Your task to perform on an android device: toggle sleep mode Image 0: 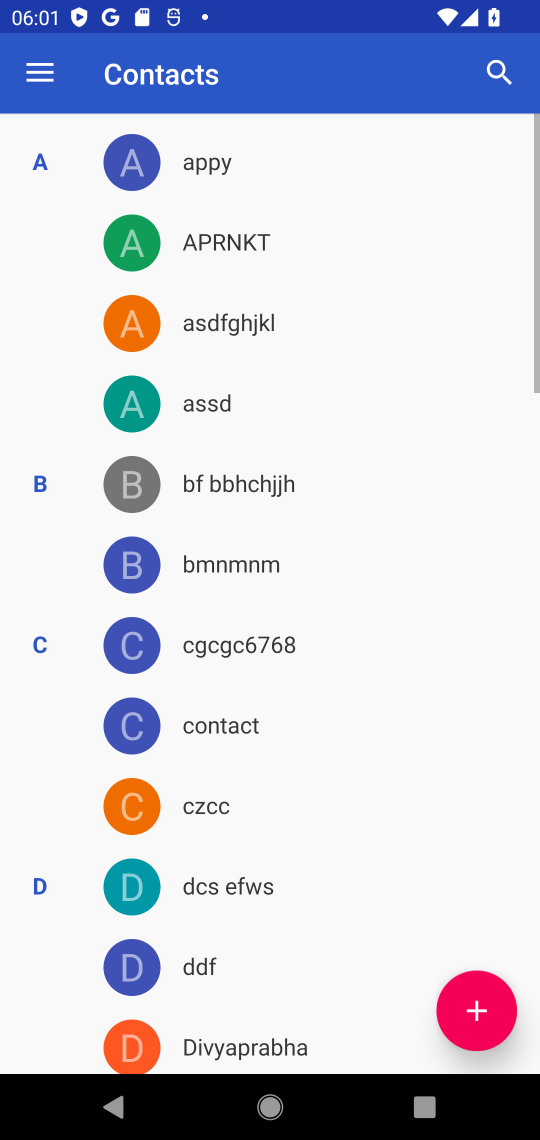
Step 0: press home button
Your task to perform on an android device: toggle sleep mode Image 1: 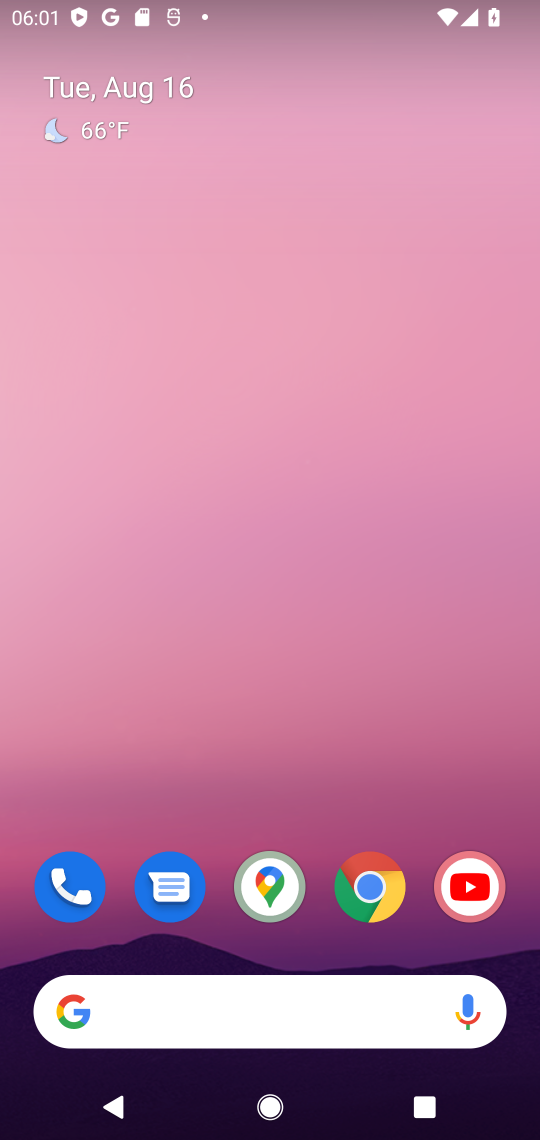
Step 1: drag from (311, 771) to (299, 191)
Your task to perform on an android device: toggle sleep mode Image 2: 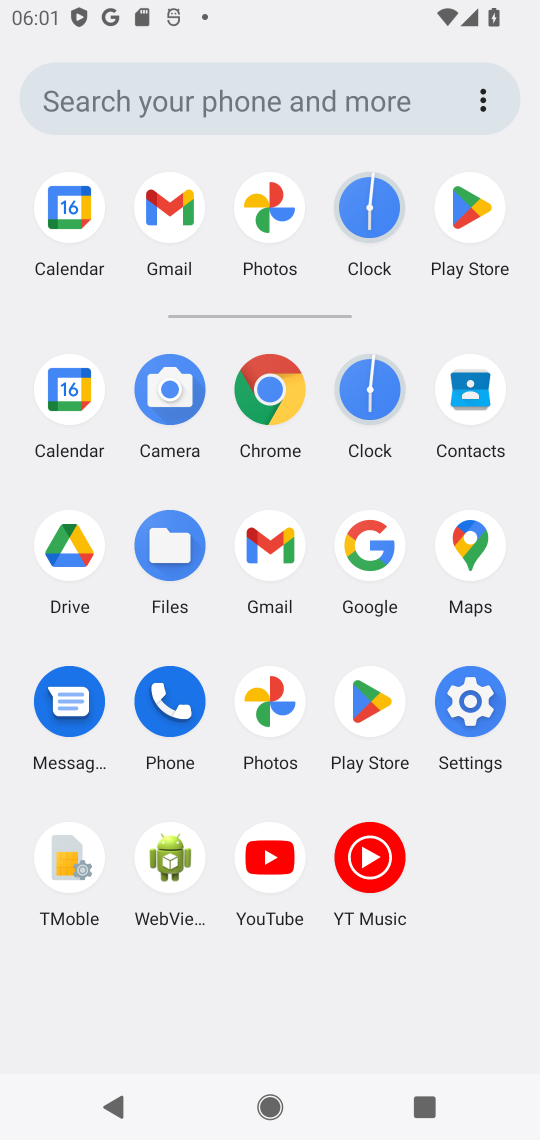
Step 2: click (457, 691)
Your task to perform on an android device: toggle sleep mode Image 3: 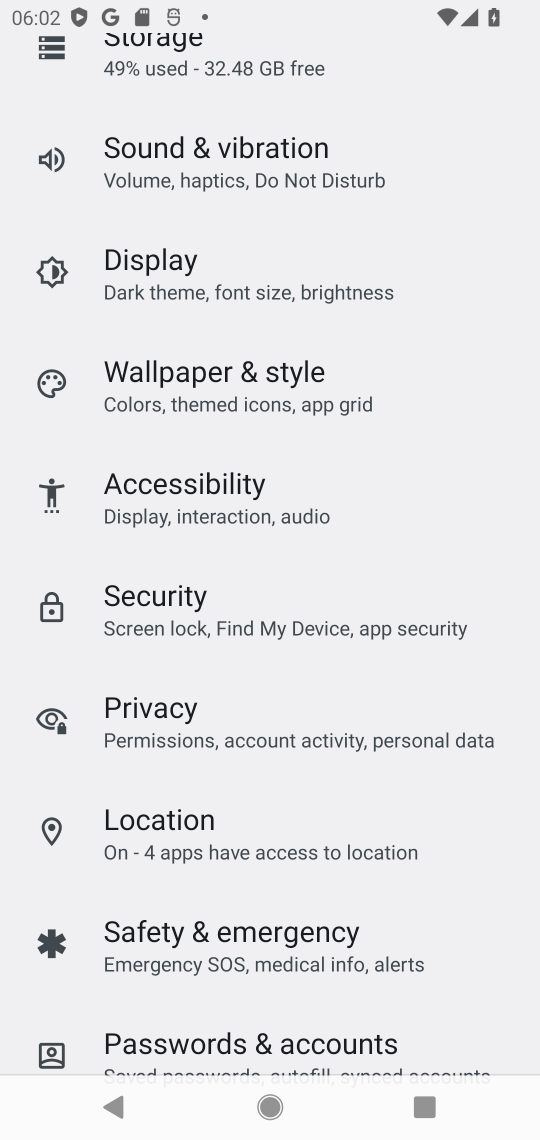
Step 3: click (220, 270)
Your task to perform on an android device: toggle sleep mode Image 4: 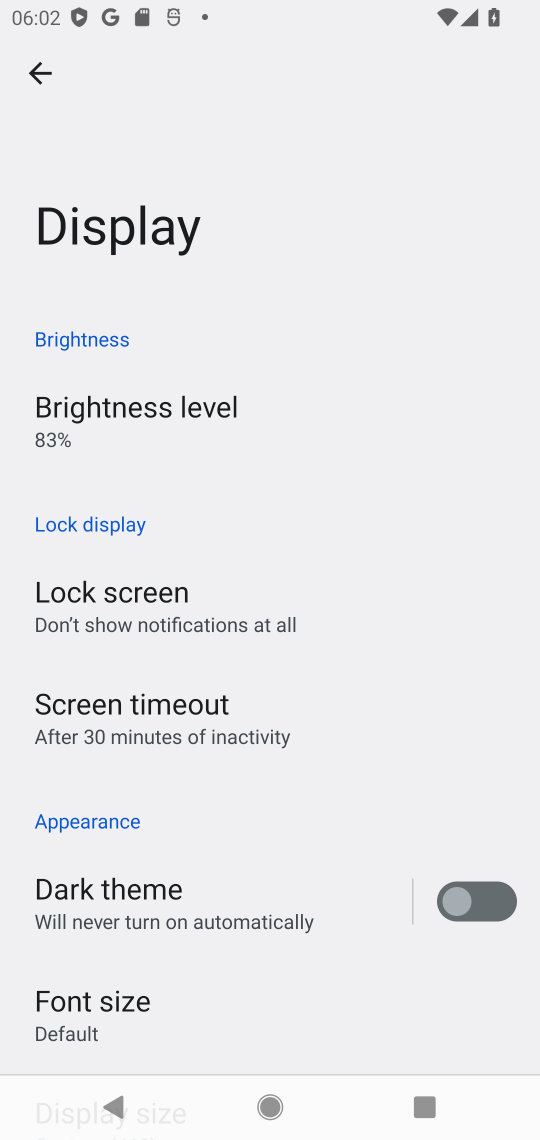
Step 4: click (157, 739)
Your task to perform on an android device: toggle sleep mode Image 5: 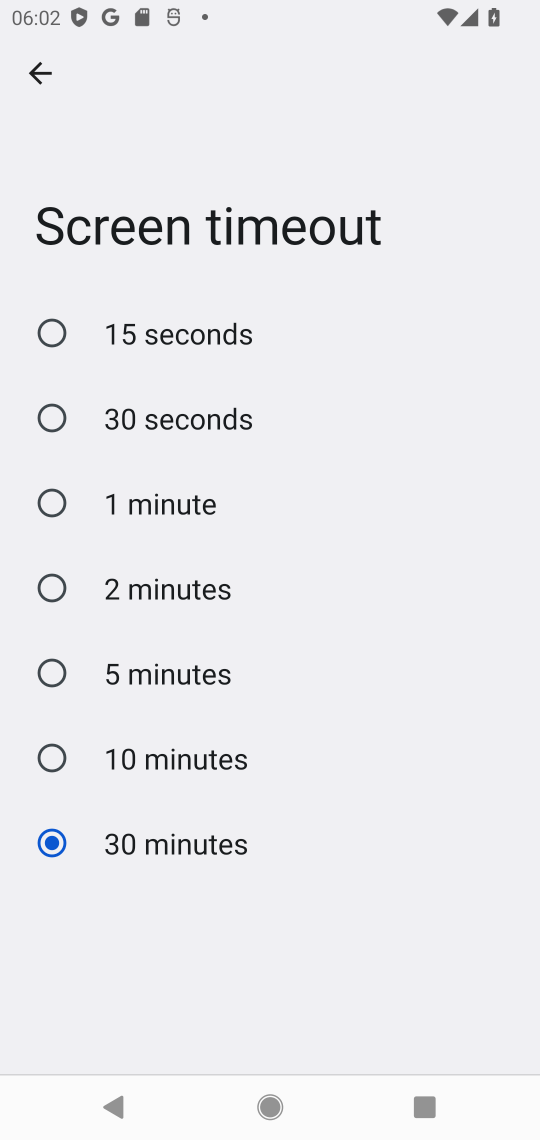
Step 5: click (129, 742)
Your task to perform on an android device: toggle sleep mode Image 6: 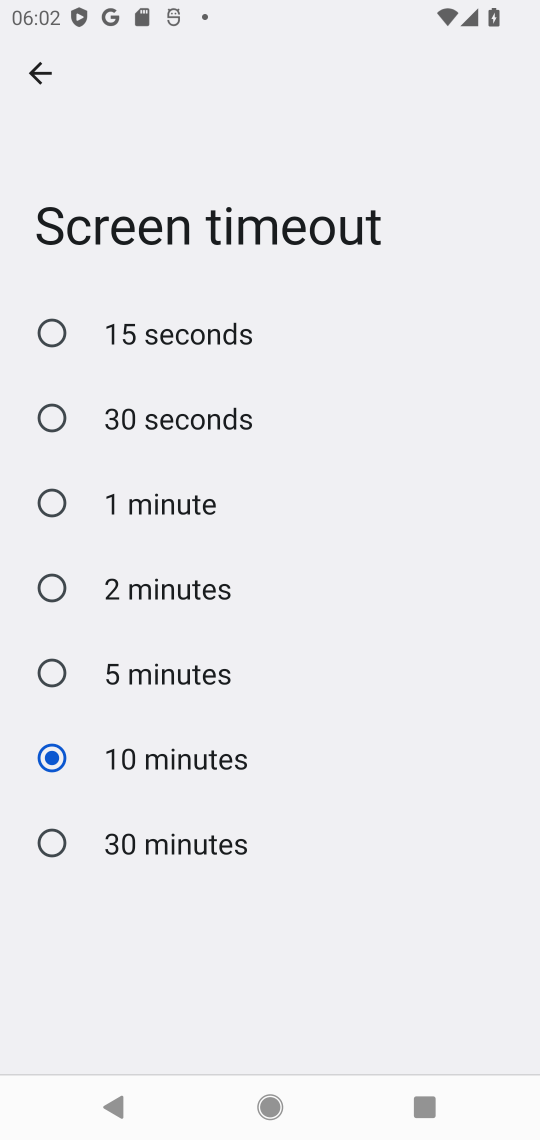
Step 6: task complete